Your task to perform on an android device: change notification settings in the gmail app Image 0: 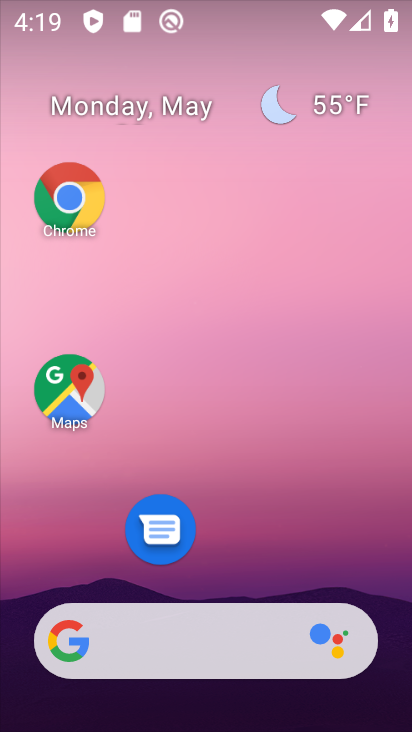
Step 0: drag from (251, 622) to (404, 30)
Your task to perform on an android device: change notification settings in the gmail app Image 1: 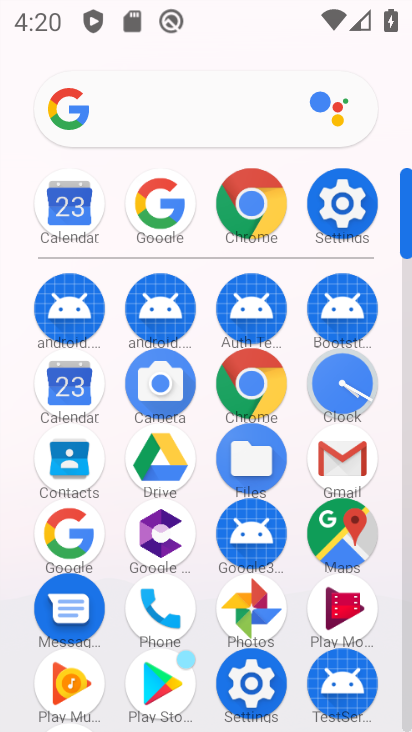
Step 1: click (347, 478)
Your task to perform on an android device: change notification settings in the gmail app Image 2: 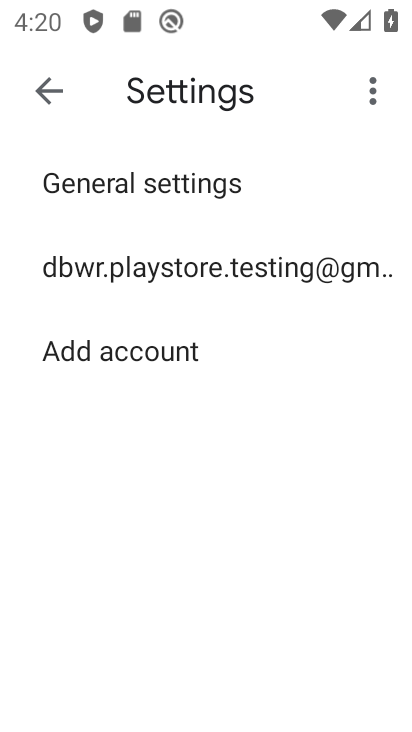
Step 2: click (198, 187)
Your task to perform on an android device: change notification settings in the gmail app Image 3: 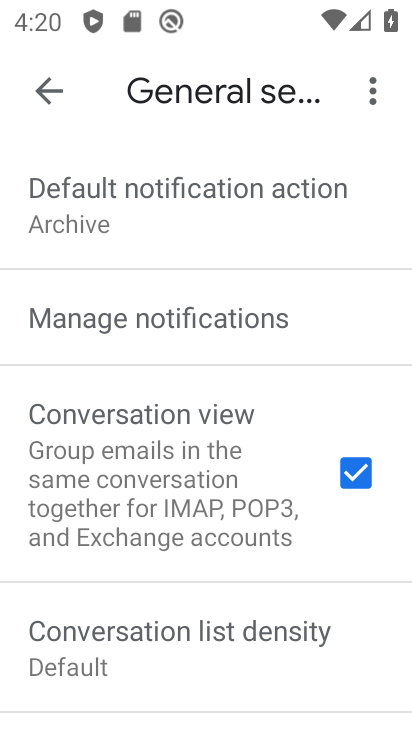
Step 3: click (278, 332)
Your task to perform on an android device: change notification settings in the gmail app Image 4: 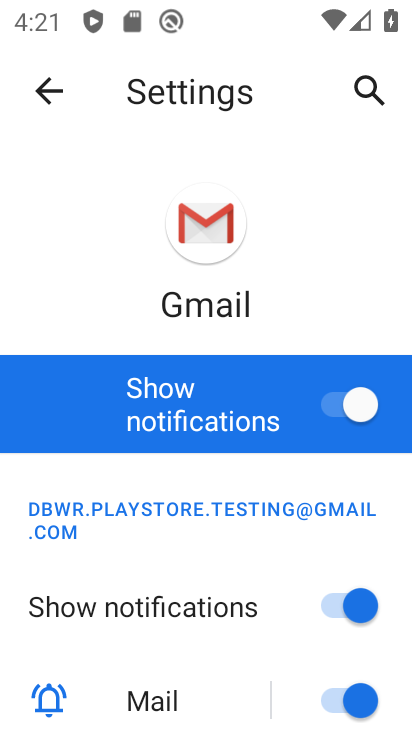
Step 4: drag from (214, 580) to (229, 330)
Your task to perform on an android device: change notification settings in the gmail app Image 5: 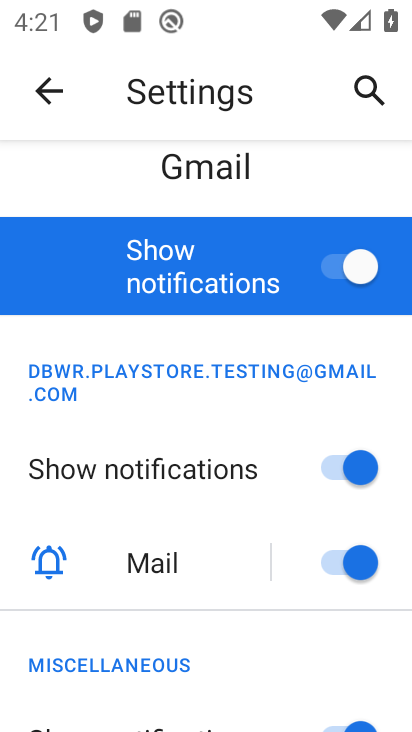
Step 5: click (344, 276)
Your task to perform on an android device: change notification settings in the gmail app Image 6: 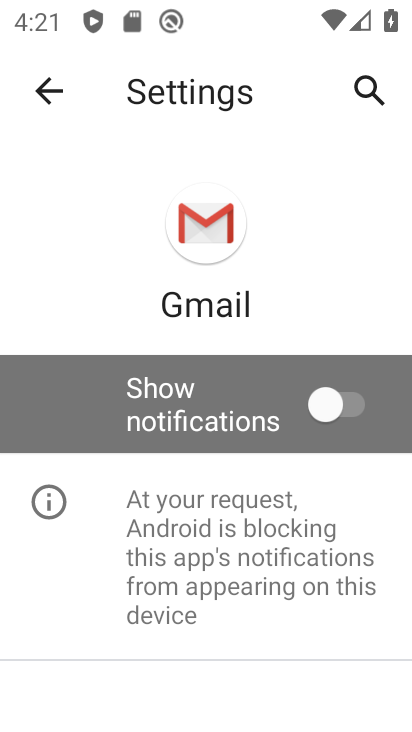
Step 6: task complete